Your task to perform on an android device: Open the map Image 0: 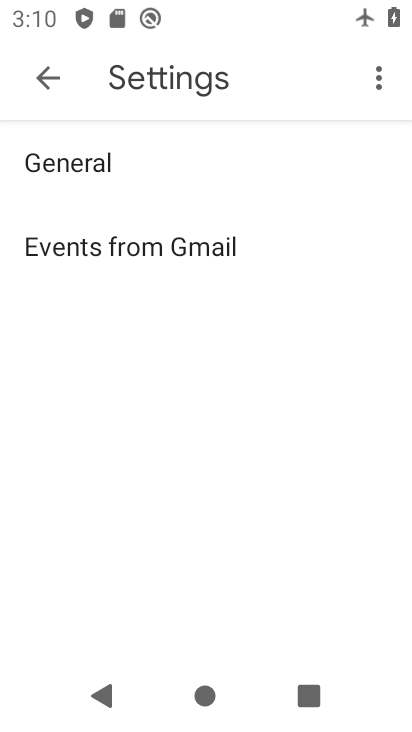
Step 0: press home button
Your task to perform on an android device: Open the map Image 1: 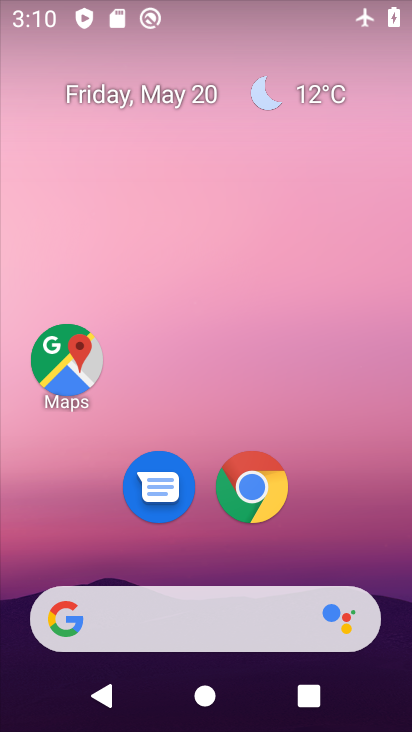
Step 1: click (80, 388)
Your task to perform on an android device: Open the map Image 2: 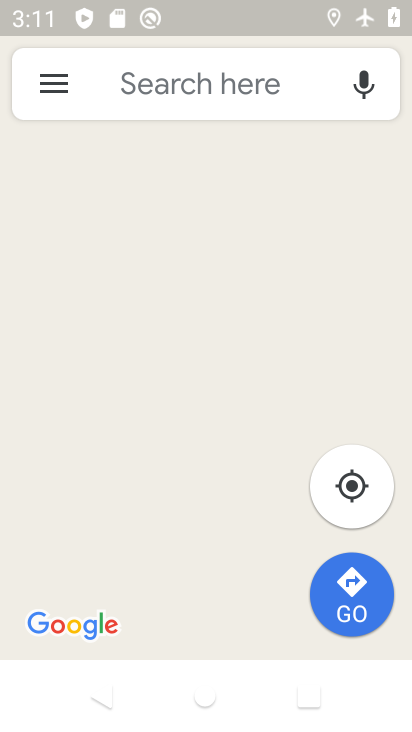
Step 2: task complete